Your task to perform on an android device: toggle javascript in the chrome app Image 0: 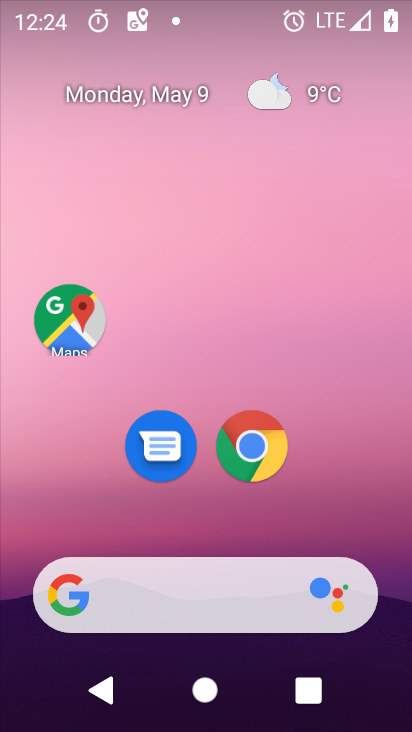
Step 0: click (255, 454)
Your task to perform on an android device: toggle javascript in the chrome app Image 1: 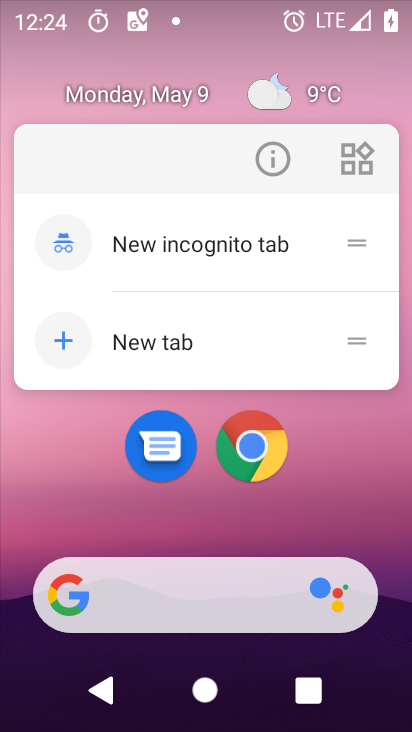
Step 1: click (269, 448)
Your task to perform on an android device: toggle javascript in the chrome app Image 2: 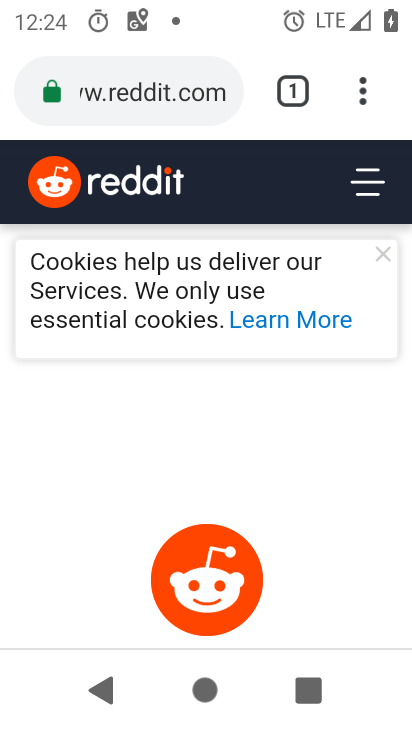
Step 2: drag from (366, 90) to (53, 486)
Your task to perform on an android device: toggle javascript in the chrome app Image 3: 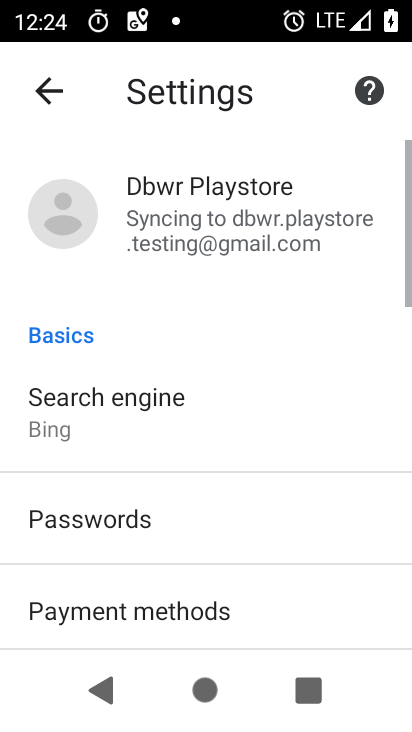
Step 3: drag from (191, 548) to (192, 140)
Your task to perform on an android device: toggle javascript in the chrome app Image 4: 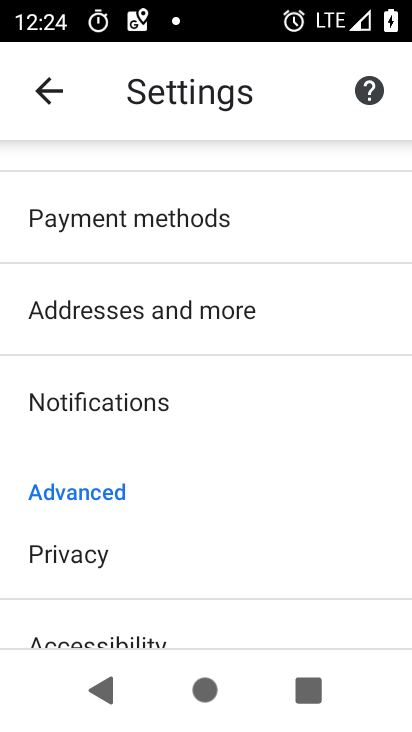
Step 4: drag from (198, 483) to (181, 143)
Your task to perform on an android device: toggle javascript in the chrome app Image 5: 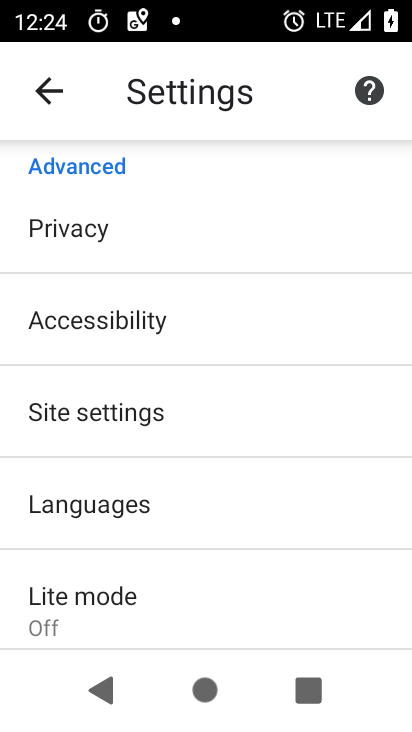
Step 5: click (124, 417)
Your task to perform on an android device: toggle javascript in the chrome app Image 6: 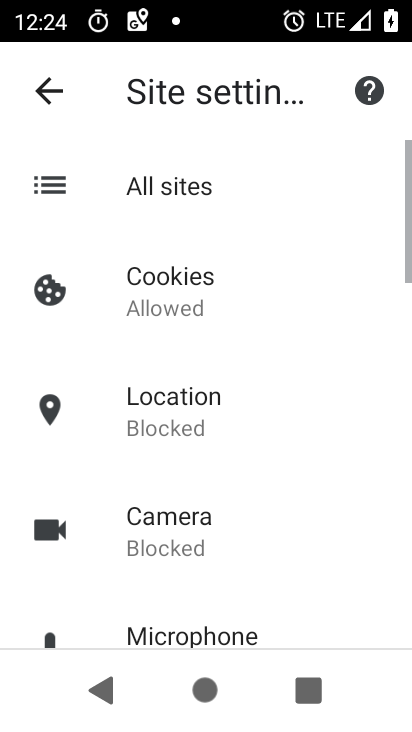
Step 6: drag from (245, 572) to (230, 231)
Your task to perform on an android device: toggle javascript in the chrome app Image 7: 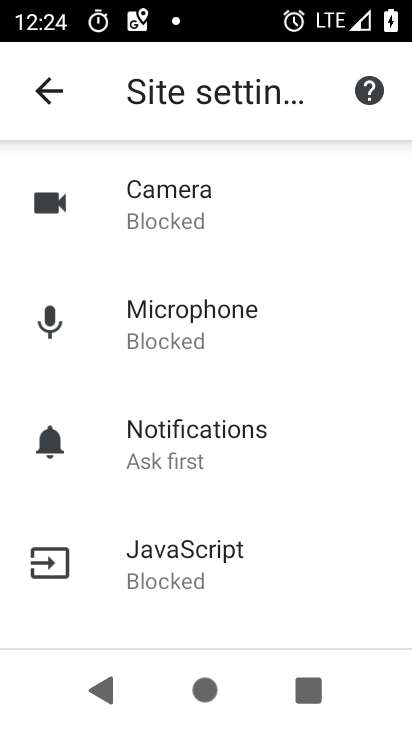
Step 7: click (168, 556)
Your task to perform on an android device: toggle javascript in the chrome app Image 8: 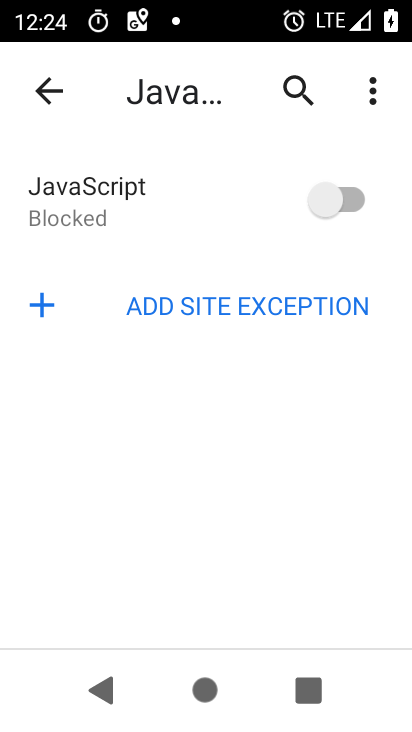
Step 8: click (331, 196)
Your task to perform on an android device: toggle javascript in the chrome app Image 9: 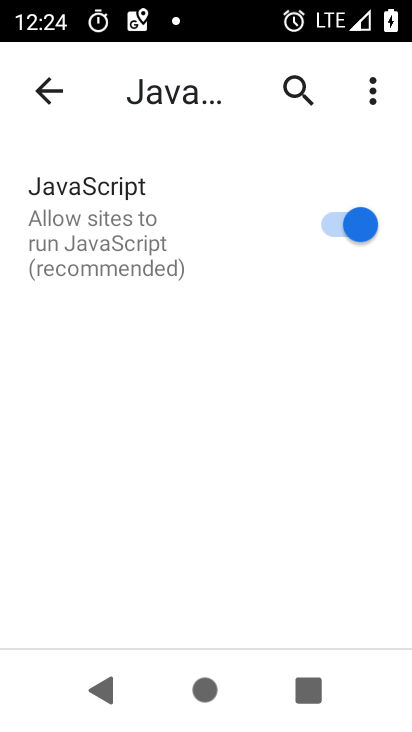
Step 9: task complete